Your task to perform on an android device: Go to battery settings Image 0: 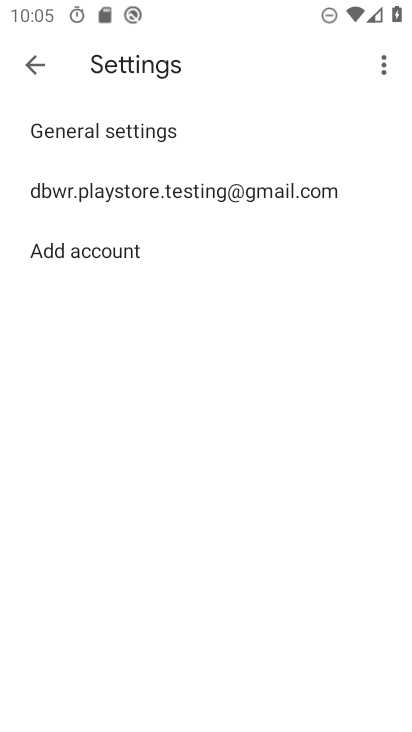
Step 0: press home button
Your task to perform on an android device: Go to battery settings Image 1: 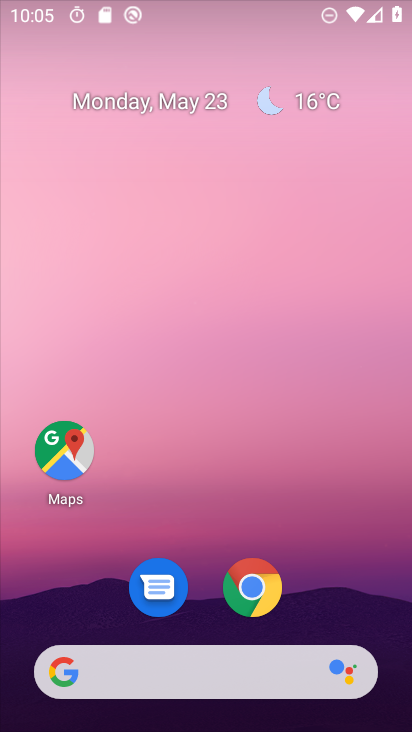
Step 1: drag from (177, 523) to (243, 4)
Your task to perform on an android device: Go to battery settings Image 2: 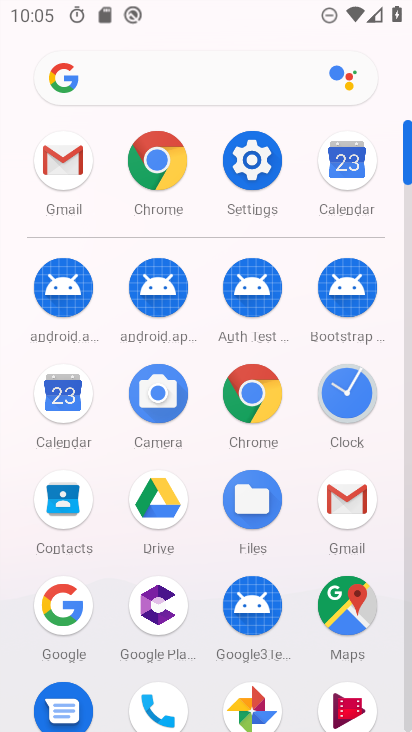
Step 2: click (248, 162)
Your task to perform on an android device: Go to battery settings Image 3: 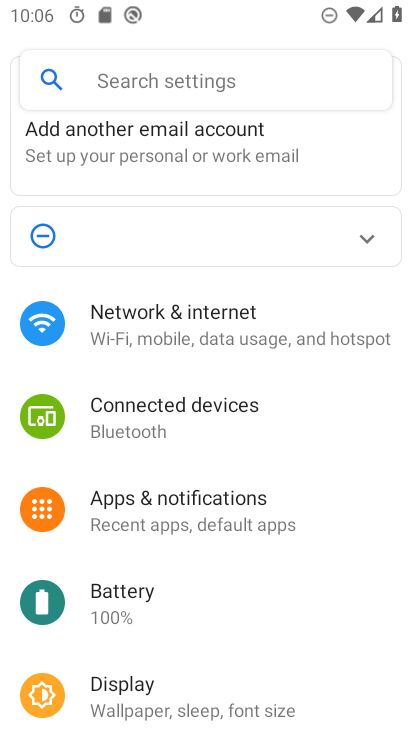
Step 3: click (144, 598)
Your task to perform on an android device: Go to battery settings Image 4: 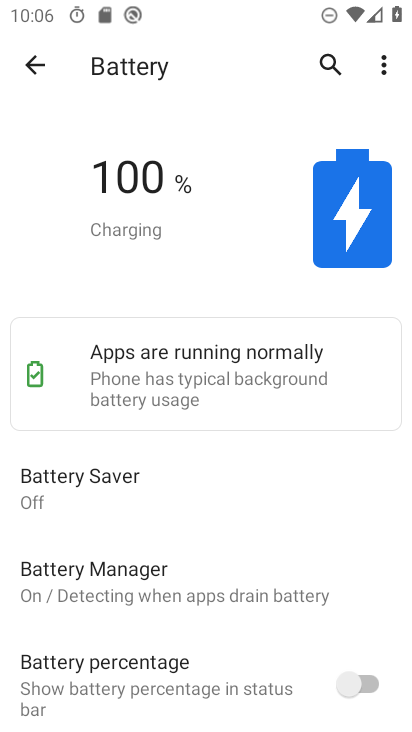
Step 4: task complete